Your task to perform on an android device: Open Chrome and go to settings Image 0: 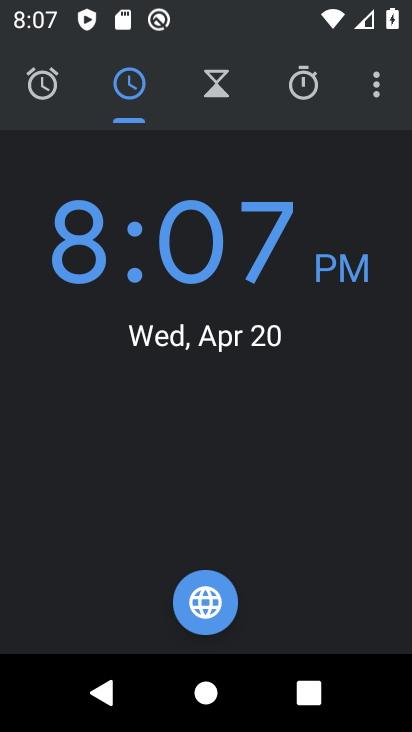
Step 0: press home button
Your task to perform on an android device: Open Chrome and go to settings Image 1: 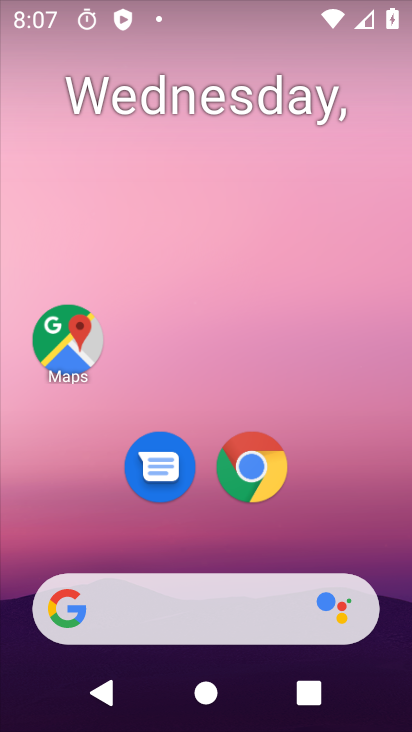
Step 1: click (259, 471)
Your task to perform on an android device: Open Chrome and go to settings Image 2: 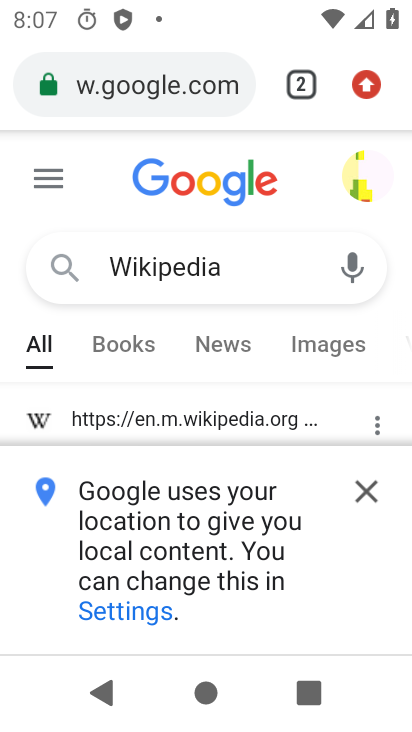
Step 2: click (366, 83)
Your task to perform on an android device: Open Chrome and go to settings Image 3: 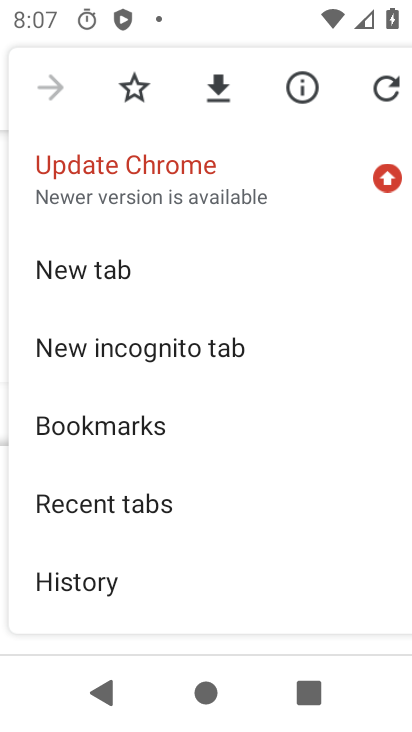
Step 3: drag from (283, 586) to (287, 213)
Your task to perform on an android device: Open Chrome and go to settings Image 4: 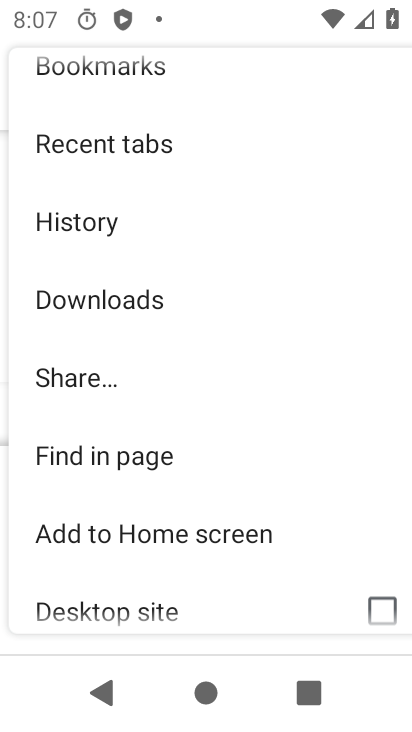
Step 4: drag from (260, 534) to (282, 220)
Your task to perform on an android device: Open Chrome and go to settings Image 5: 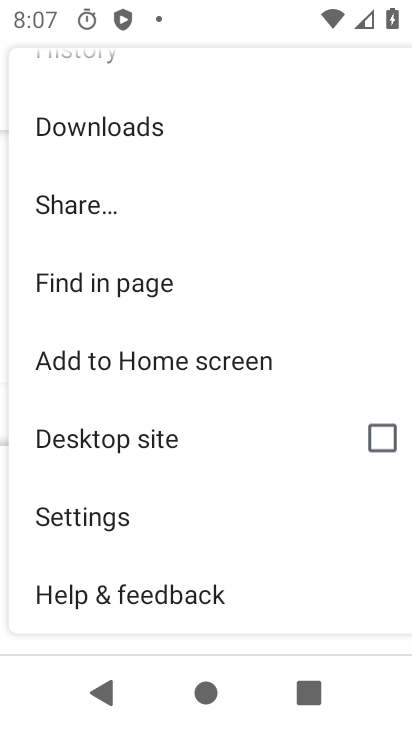
Step 5: click (92, 518)
Your task to perform on an android device: Open Chrome and go to settings Image 6: 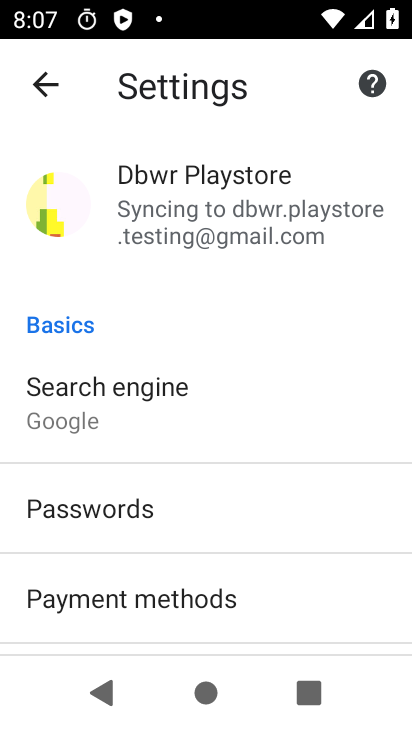
Step 6: task complete